Your task to perform on an android device: Search for the best way to make a resume. Image 0: 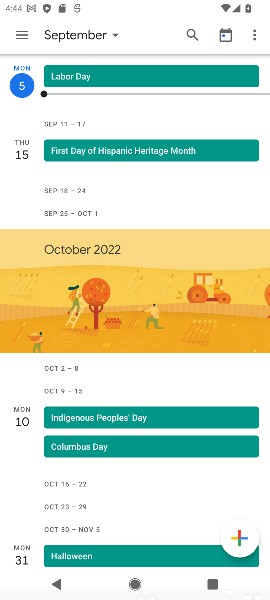
Step 0: press home button
Your task to perform on an android device: Search for the best way to make a resume. Image 1: 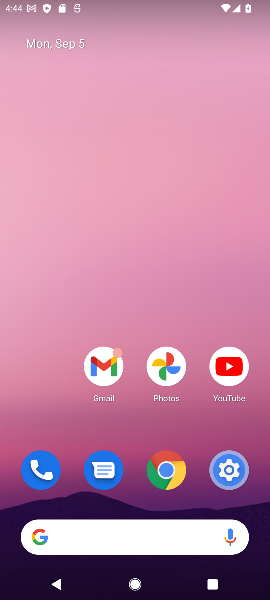
Step 1: click (176, 541)
Your task to perform on an android device: Search for the best way to make a resume. Image 2: 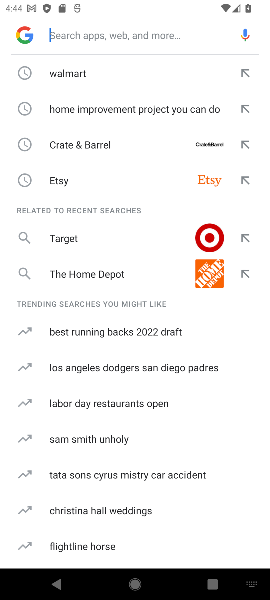
Step 2: type "best way to make resume"
Your task to perform on an android device: Search for the best way to make a resume. Image 3: 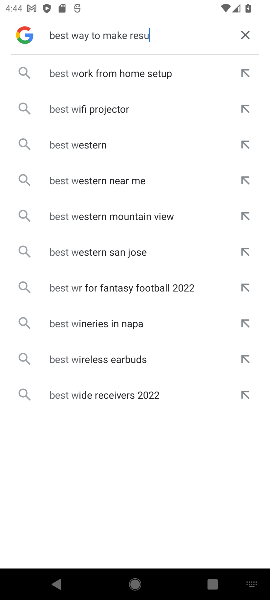
Step 3: type ""
Your task to perform on an android device: Search for the best way to make a resume. Image 4: 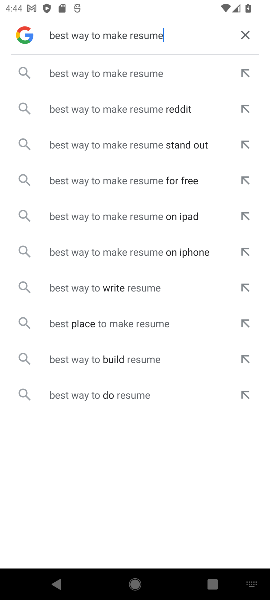
Step 4: type ""
Your task to perform on an android device: Search for the best way to make a resume. Image 5: 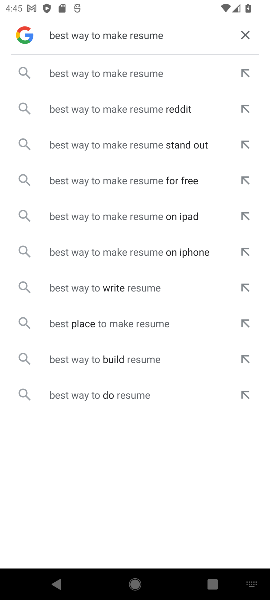
Step 5: type ""
Your task to perform on an android device: Search for the best way to make a resume. Image 6: 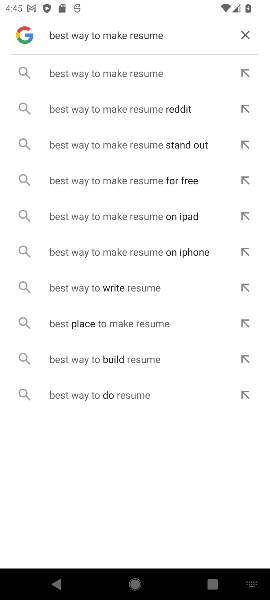
Step 6: press enter
Your task to perform on an android device: Search for the best way to make a resume. Image 7: 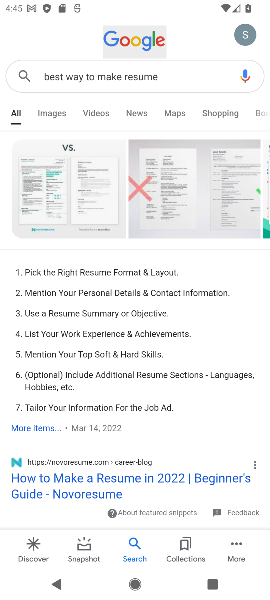
Step 7: drag from (234, 435) to (222, 73)
Your task to perform on an android device: Search for the best way to make a resume. Image 8: 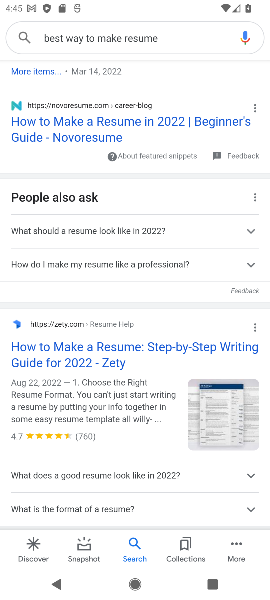
Step 8: drag from (202, 315) to (141, 235)
Your task to perform on an android device: Search for the best way to make a resume. Image 9: 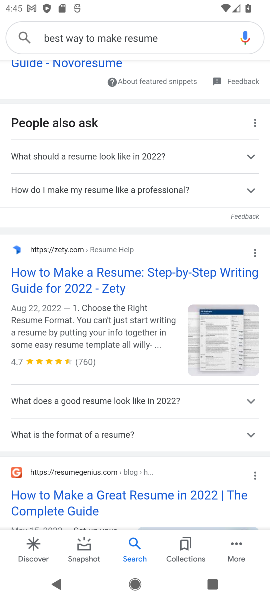
Step 9: drag from (172, 411) to (189, 158)
Your task to perform on an android device: Search for the best way to make a resume. Image 10: 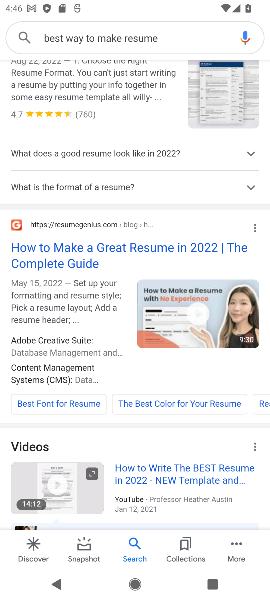
Step 10: drag from (128, 429) to (177, 213)
Your task to perform on an android device: Search for the best way to make a resume. Image 11: 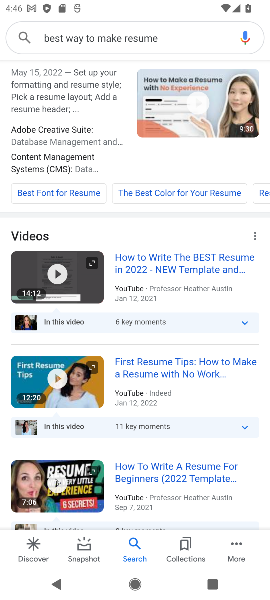
Step 11: drag from (103, 445) to (131, 490)
Your task to perform on an android device: Search for the best way to make a resume. Image 12: 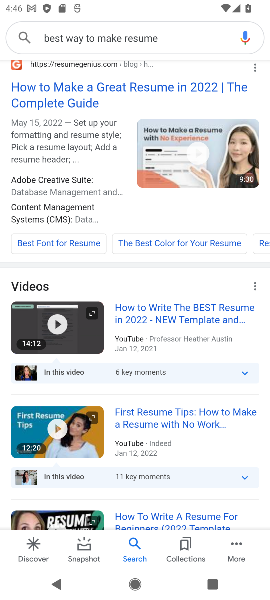
Step 12: drag from (142, 271) to (148, 516)
Your task to perform on an android device: Search for the best way to make a resume. Image 13: 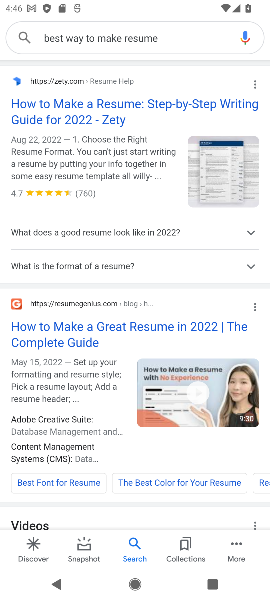
Step 13: drag from (183, 325) to (175, 506)
Your task to perform on an android device: Search for the best way to make a resume. Image 14: 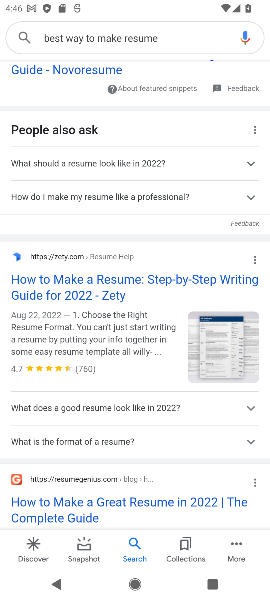
Step 14: drag from (178, 226) to (185, 400)
Your task to perform on an android device: Search for the best way to make a resume. Image 15: 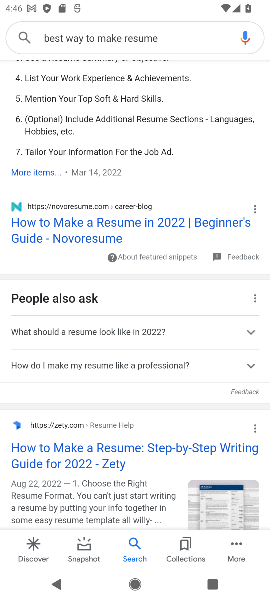
Step 15: click (168, 173)
Your task to perform on an android device: Search for the best way to make a resume. Image 16: 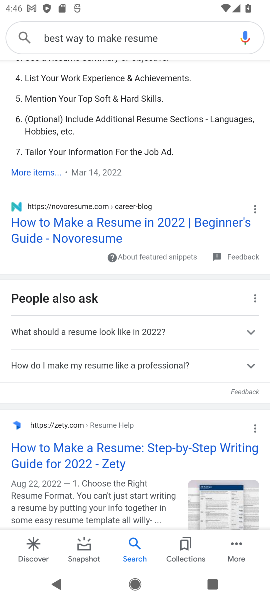
Step 16: click (168, 403)
Your task to perform on an android device: Search for the best way to make a resume. Image 17: 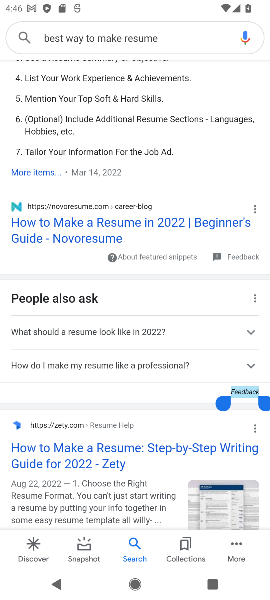
Step 17: drag from (182, 284) to (182, 324)
Your task to perform on an android device: Search for the best way to make a resume. Image 18: 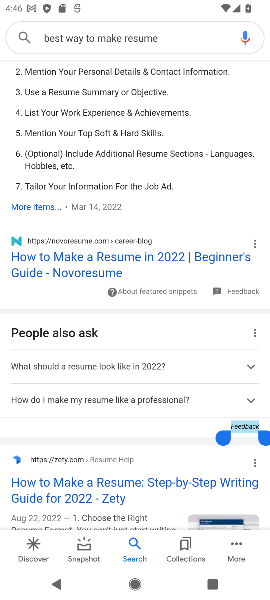
Step 18: click (169, 334)
Your task to perform on an android device: Search for the best way to make a resume. Image 19: 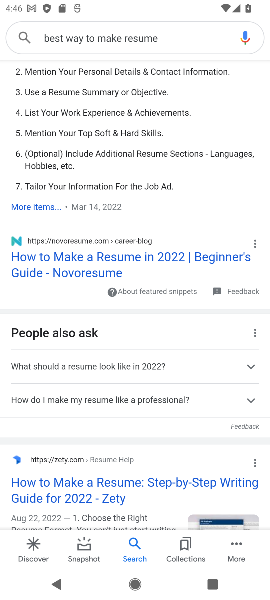
Step 19: drag from (167, 337) to (167, 482)
Your task to perform on an android device: Search for the best way to make a resume. Image 20: 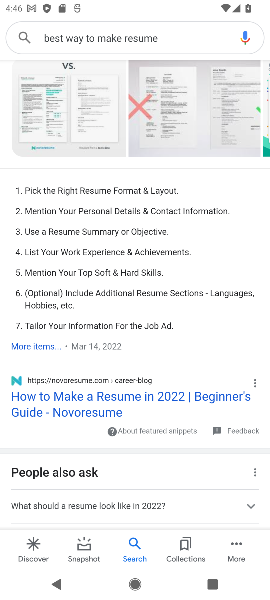
Step 20: drag from (186, 349) to (176, 492)
Your task to perform on an android device: Search for the best way to make a resume. Image 21: 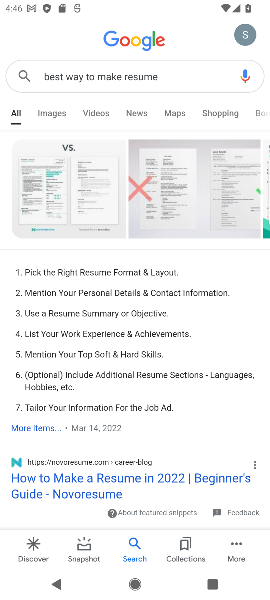
Step 21: click (181, 449)
Your task to perform on an android device: Search for the best way to make a resume. Image 22: 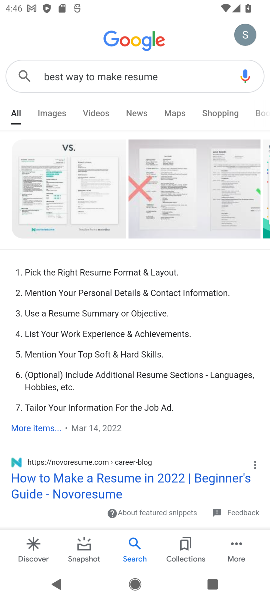
Step 22: drag from (180, 448) to (186, 359)
Your task to perform on an android device: Search for the best way to make a resume. Image 23: 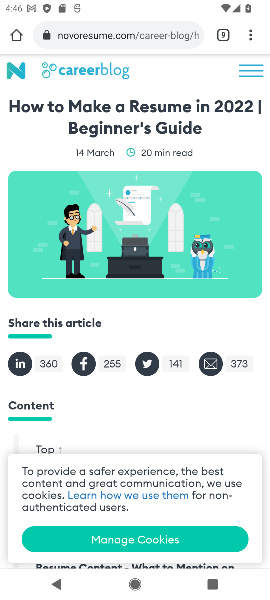
Step 23: drag from (146, 417) to (181, 162)
Your task to perform on an android device: Search for the best way to make a resume. Image 24: 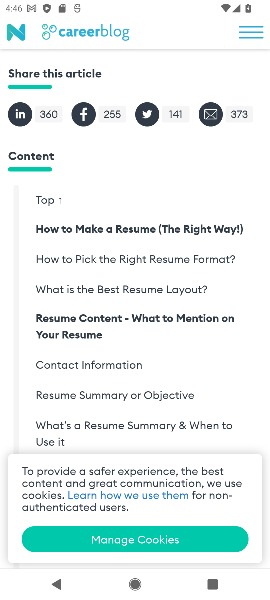
Step 24: drag from (248, 364) to (253, 197)
Your task to perform on an android device: Search for the best way to make a resume. Image 25: 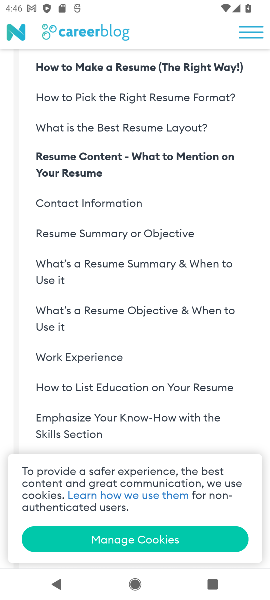
Step 25: drag from (245, 290) to (245, 225)
Your task to perform on an android device: Search for the best way to make a resume. Image 26: 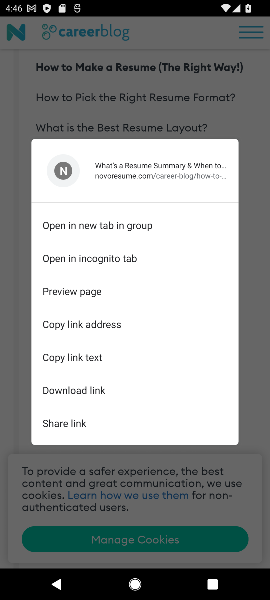
Step 26: click (262, 298)
Your task to perform on an android device: Search for the best way to make a resume. Image 27: 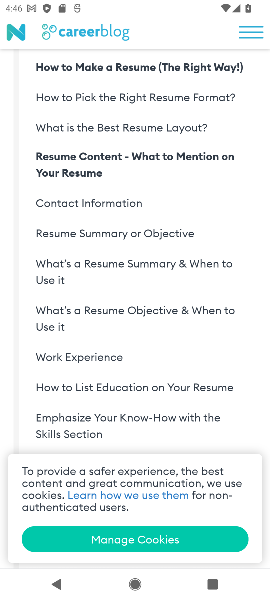
Step 27: task complete